Your task to perform on an android device: What's the weather today? Image 0: 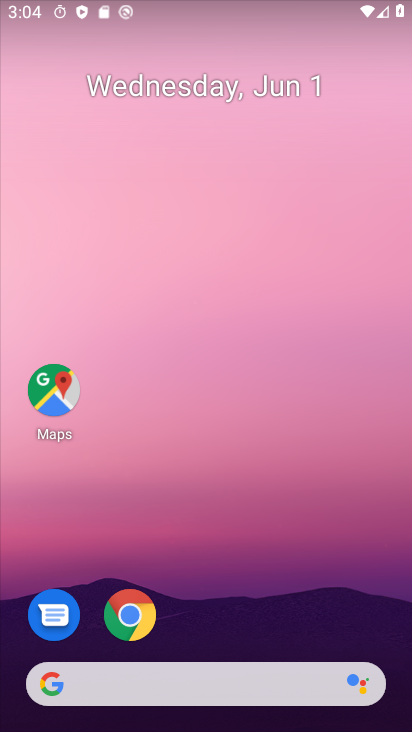
Step 0: drag from (269, 616) to (274, 130)
Your task to perform on an android device: What's the weather today? Image 1: 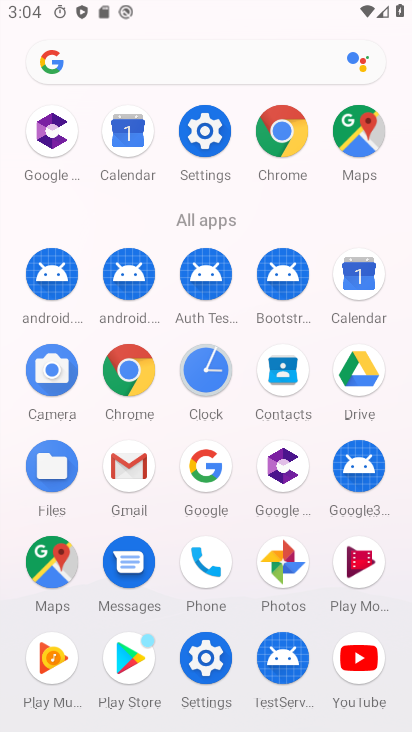
Step 1: click (357, 280)
Your task to perform on an android device: What's the weather today? Image 2: 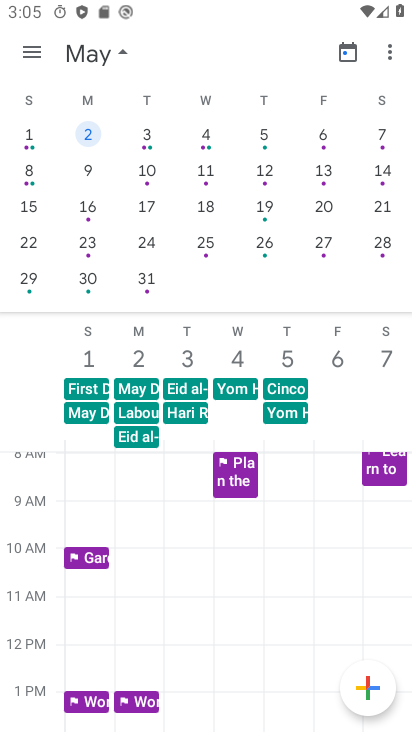
Step 2: press home button
Your task to perform on an android device: What's the weather today? Image 3: 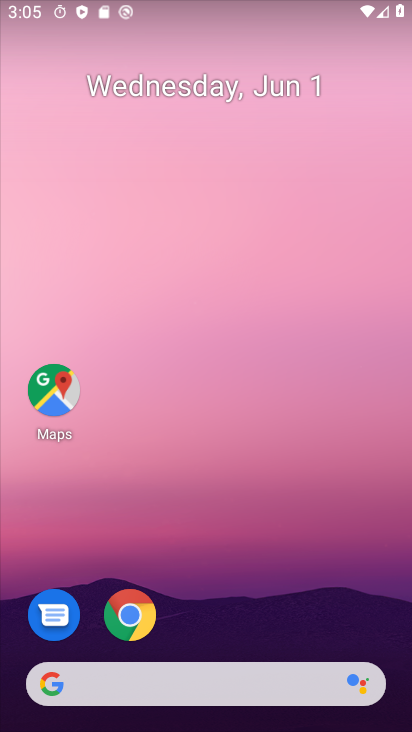
Step 3: drag from (21, 174) to (390, 203)
Your task to perform on an android device: What's the weather today? Image 4: 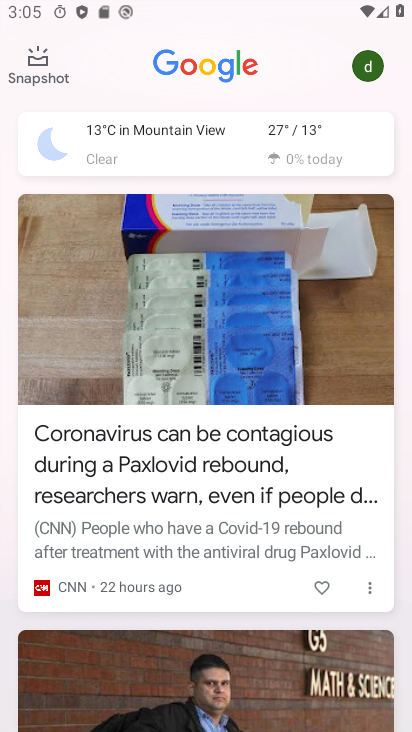
Step 4: click (277, 143)
Your task to perform on an android device: What's the weather today? Image 5: 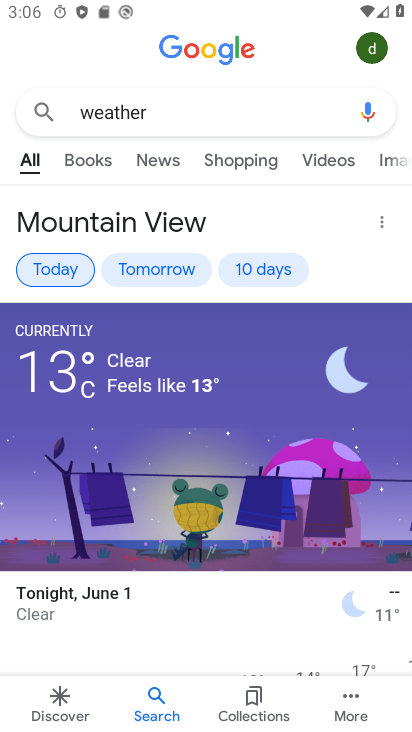
Step 5: task complete